Your task to perform on an android device: Search for seafood restaurants on Google Maps Image 0: 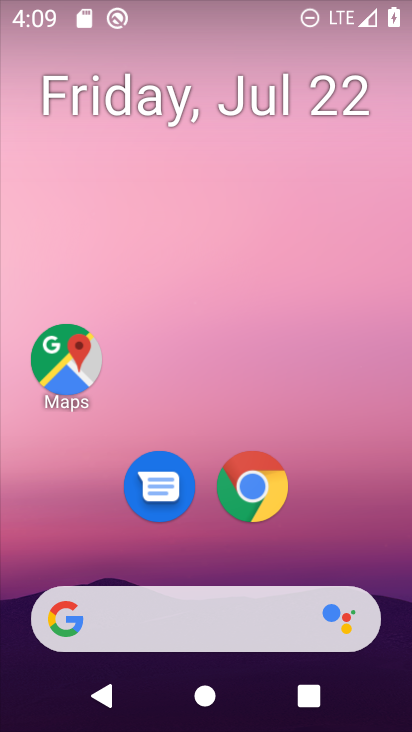
Step 0: click (73, 354)
Your task to perform on an android device: Search for seafood restaurants on Google Maps Image 1: 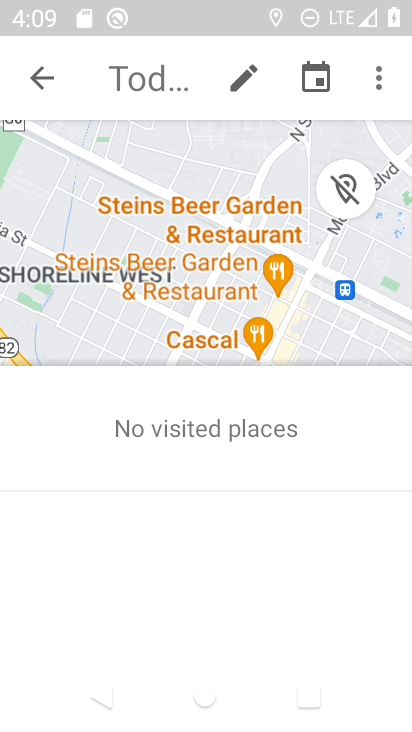
Step 1: click (42, 82)
Your task to perform on an android device: Search for seafood restaurants on Google Maps Image 2: 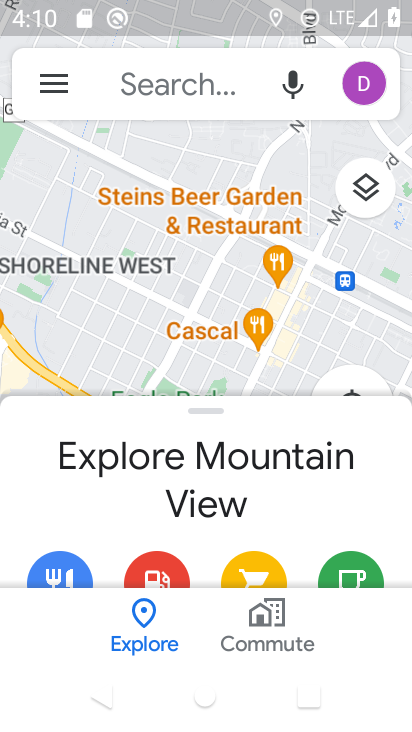
Step 2: click (135, 88)
Your task to perform on an android device: Search for seafood restaurants on Google Maps Image 3: 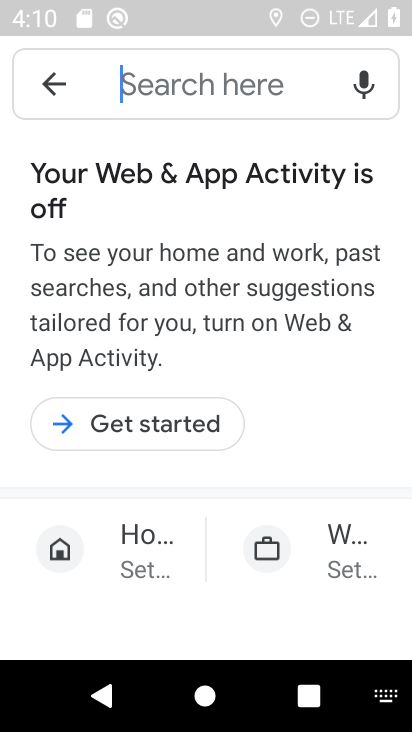
Step 3: type "seafood restaurants"
Your task to perform on an android device: Search for seafood restaurants on Google Maps Image 4: 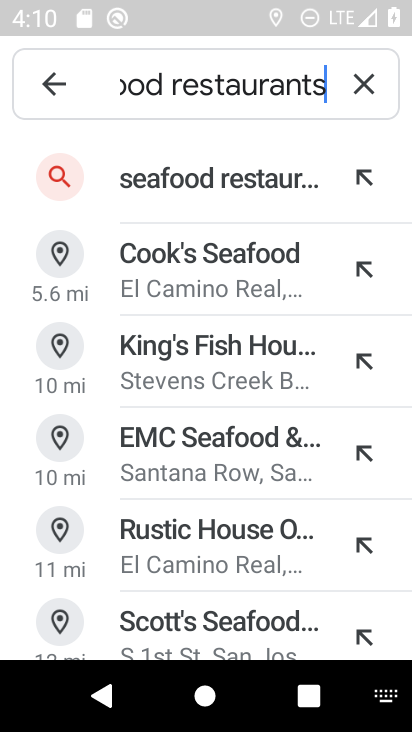
Step 4: click (180, 169)
Your task to perform on an android device: Search for seafood restaurants on Google Maps Image 5: 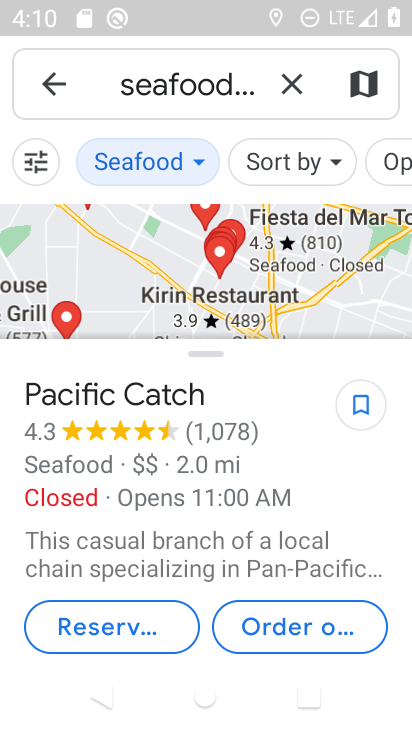
Step 5: task complete